Your task to perform on an android device: allow notifications from all sites in the chrome app Image 0: 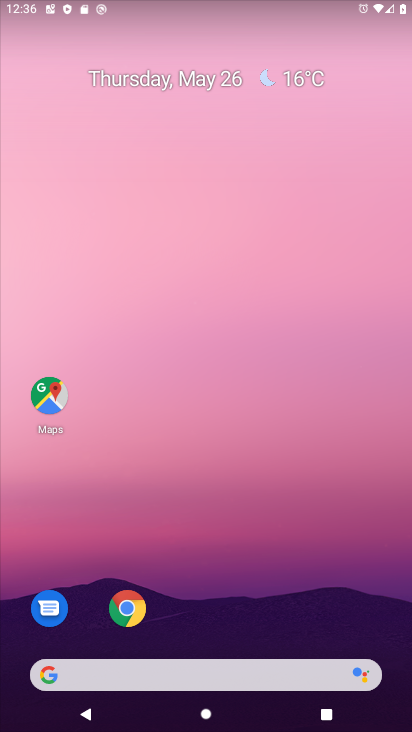
Step 0: click (127, 607)
Your task to perform on an android device: allow notifications from all sites in the chrome app Image 1: 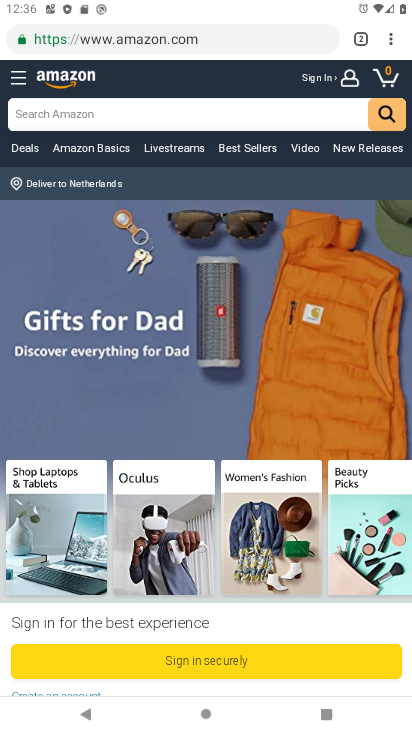
Step 1: click (392, 44)
Your task to perform on an android device: allow notifications from all sites in the chrome app Image 2: 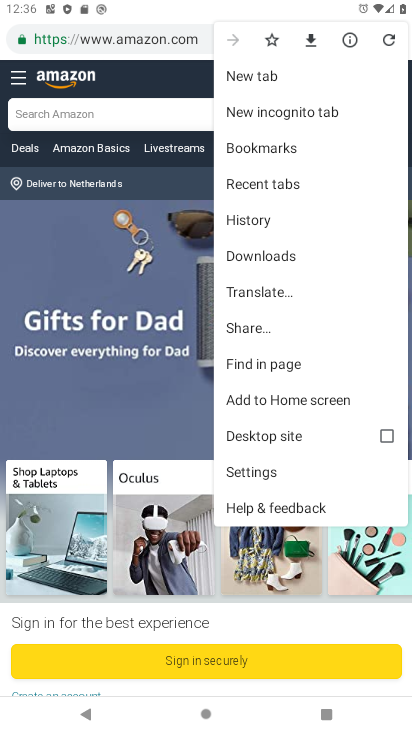
Step 2: click (254, 472)
Your task to perform on an android device: allow notifications from all sites in the chrome app Image 3: 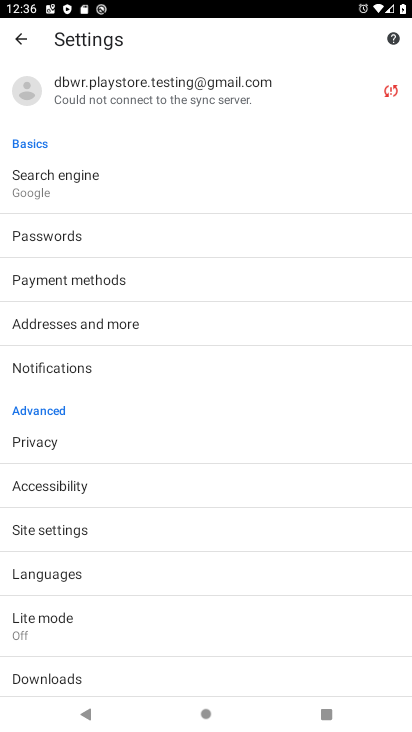
Step 3: click (47, 525)
Your task to perform on an android device: allow notifications from all sites in the chrome app Image 4: 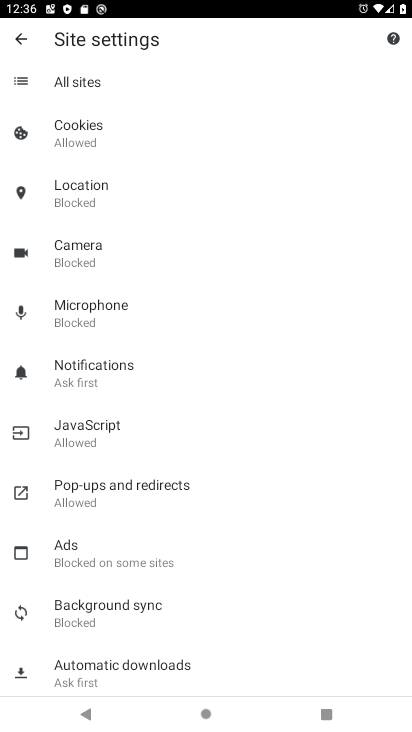
Step 4: click (84, 368)
Your task to perform on an android device: allow notifications from all sites in the chrome app Image 5: 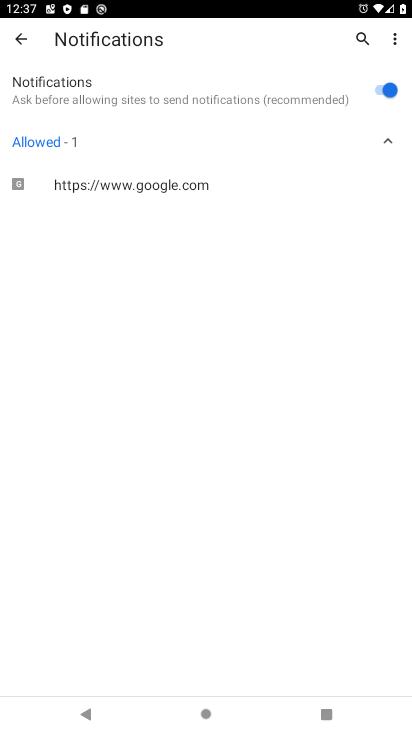
Step 5: task complete